Your task to perform on an android device: find which apps use the phone's location Image 0: 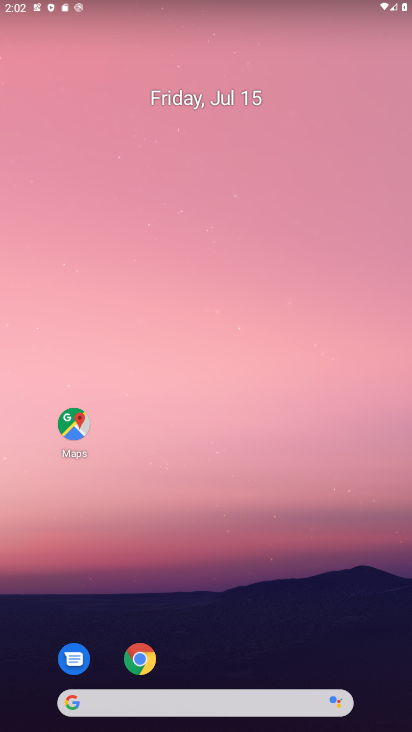
Step 0: drag from (222, 640) to (222, 131)
Your task to perform on an android device: find which apps use the phone's location Image 1: 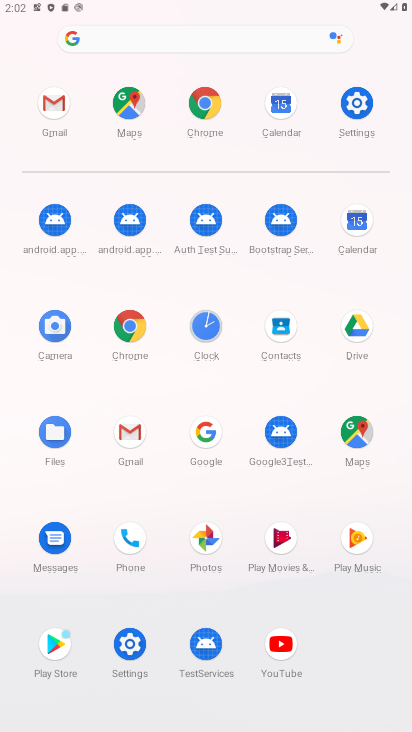
Step 1: click (357, 90)
Your task to perform on an android device: find which apps use the phone's location Image 2: 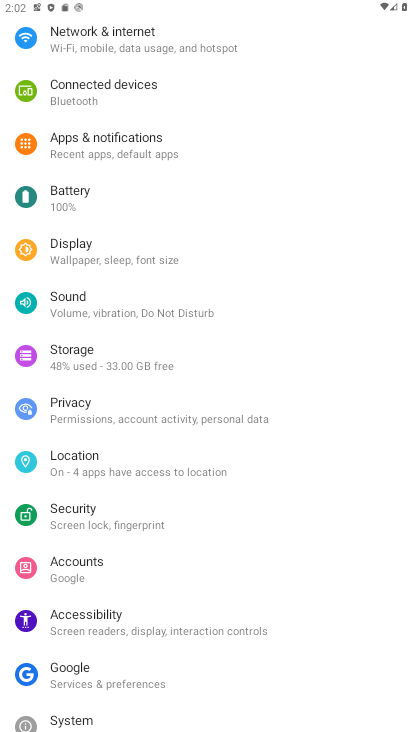
Step 2: click (114, 458)
Your task to perform on an android device: find which apps use the phone's location Image 3: 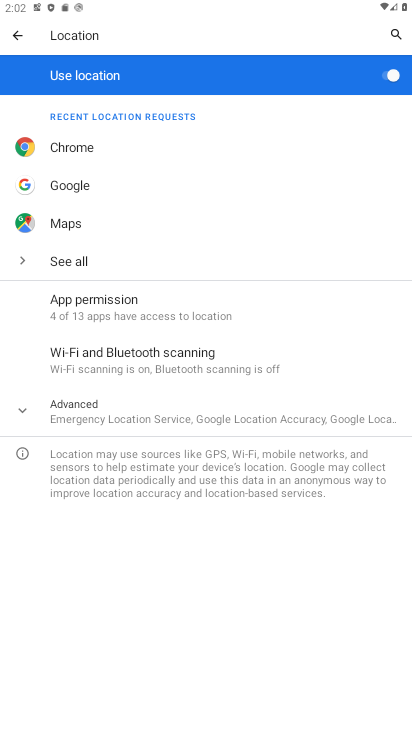
Step 3: task complete